Your task to perform on an android device: Clear all items from cart on walmart.com. Add "razer blade" to the cart on walmart.com, then select checkout. Image 0: 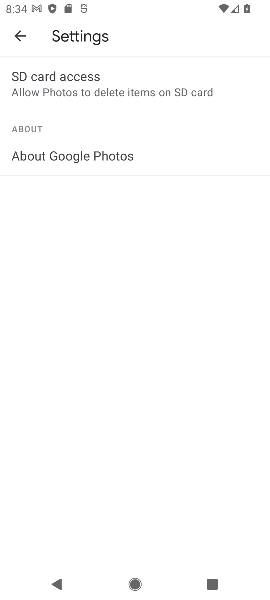
Step 0: task complete